Your task to perform on an android device: Open Google Maps Image 0: 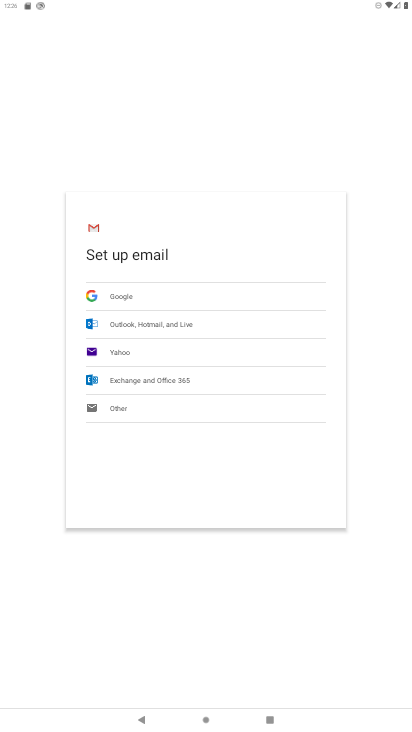
Step 0: press home button
Your task to perform on an android device: Open Google Maps Image 1: 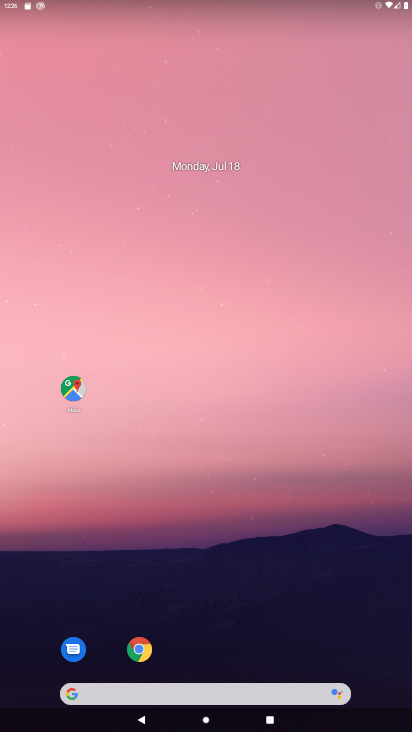
Step 1: drag from (226, 663) to (211, 133)
Your task to perform on an android device: Open Google Maps Image 2: 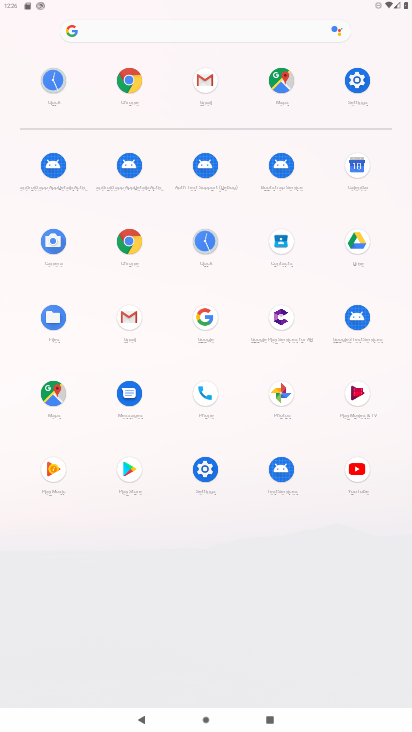
Step 2: click (121, 74)
Your task to perform on an android device: Open Google Maps Image 3: 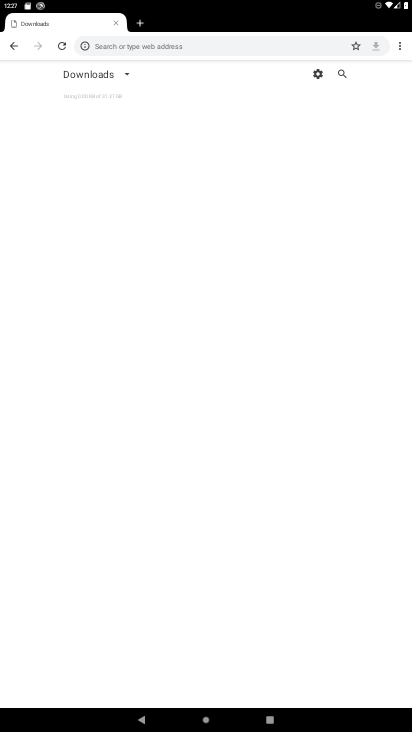
Step 3: press home button
Your task to perform on an android device: Open Google Maps Image 4: 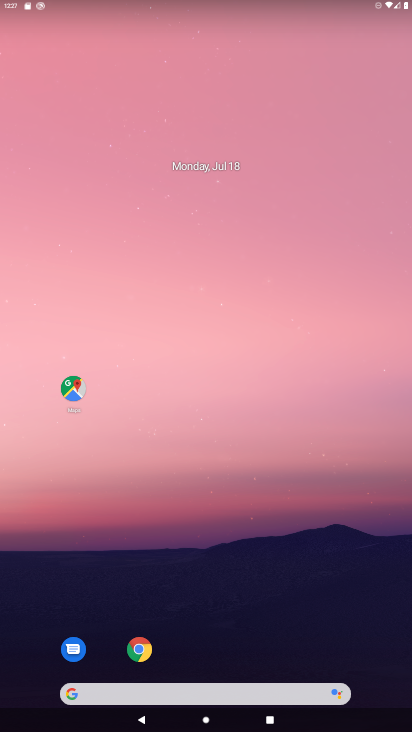
Step 4: click (66, 389)
Your task to perform on an android device: Open Google Maps Image 5: 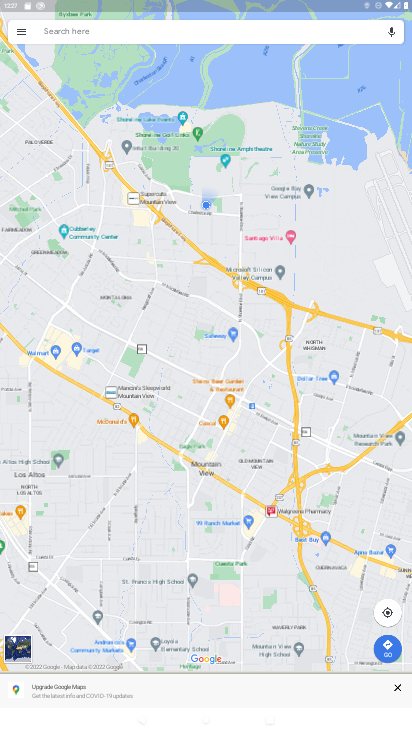
Step 5: task complete